Your task to perform on an android device: check data usage Image 0: 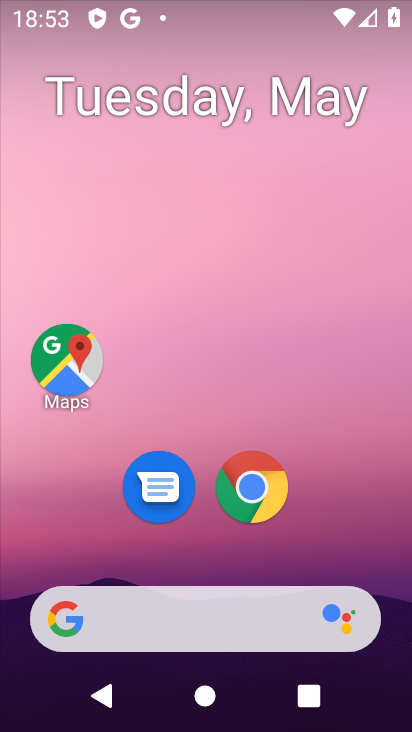
Step 0: drag from (328, 538) to (245, 48)
Your task to perform on an android device: check data usage Image 1: 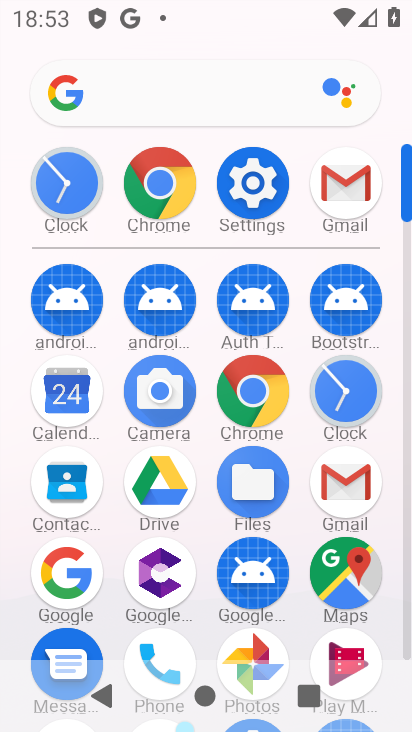
Step 1: click (253, 185)
Your task to perform on an android device: check data usage Image 2: 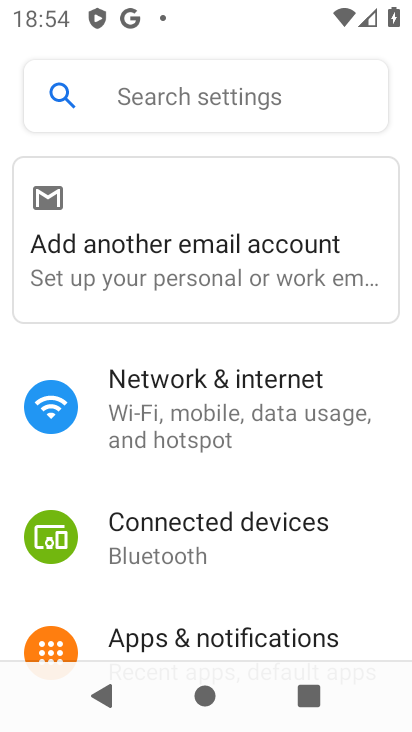
Step 2: click (192, 398)
Your task to perform on an android device: check data usage Image 3: 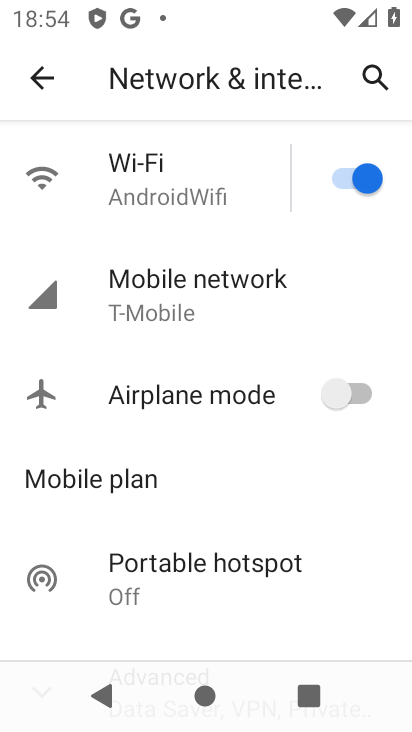
Step 3: click (173, 288)
Your task to perform on an android device: check data usage Image 4: 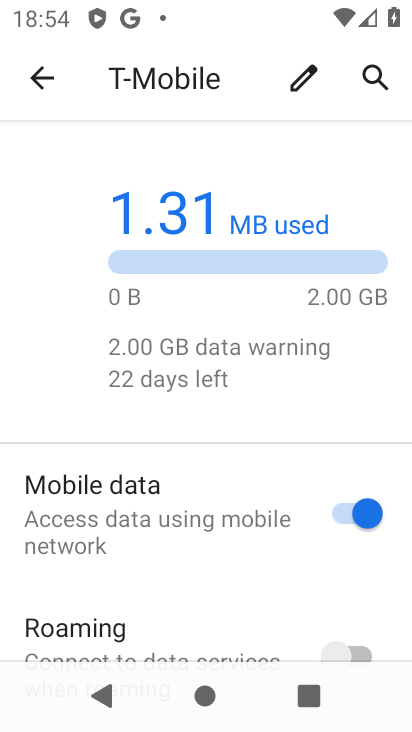
Step 4: task complete